Your task to perform on an android device: Open the calendar and show me this week's events Image 0: 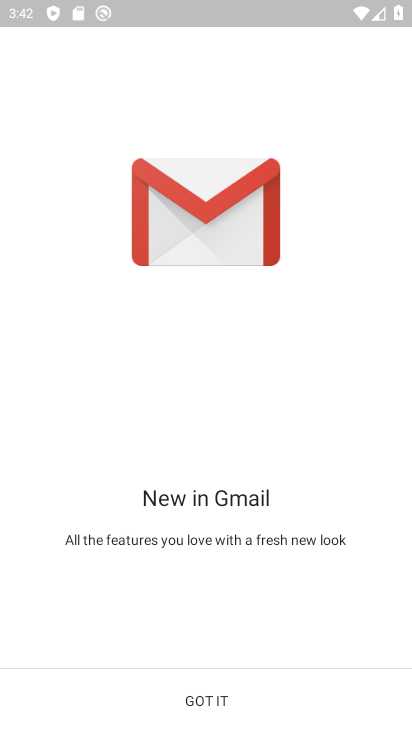
Step 0: press home button
Your task to perform on an android device: Open the calendar and show me this week's events Image 1: 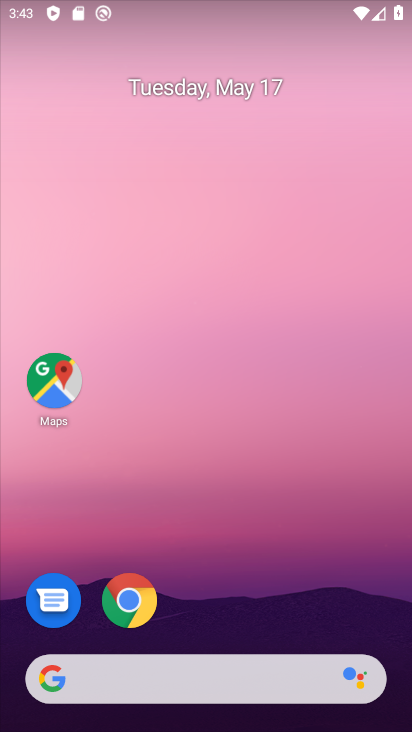
Step 1: drag from (219, 626) to (318, 145)
Your task to perform on an android device: Open the calendar and show me this week's events Image 2: 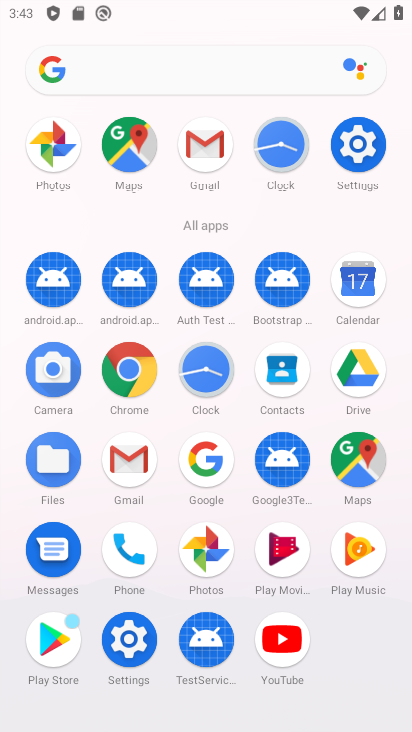
Step 2: click (363, 290)
Your task to perform on an android device: Open the calendar and show me this week's events Image 3: 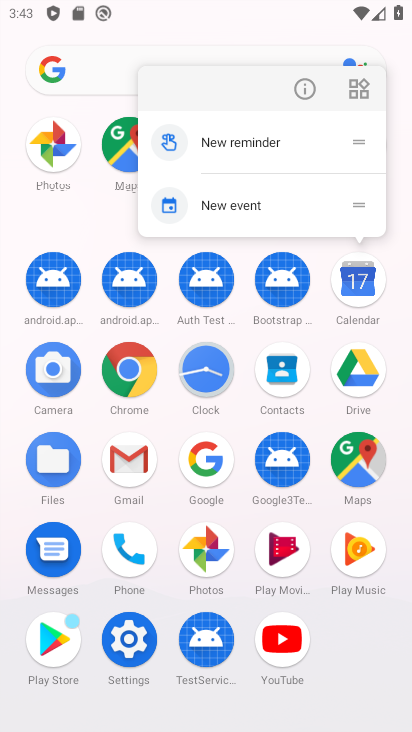
Step 3: click (372, 284)
Your task to perform on an android device: Open the calendar and show me this week's events Image 4: 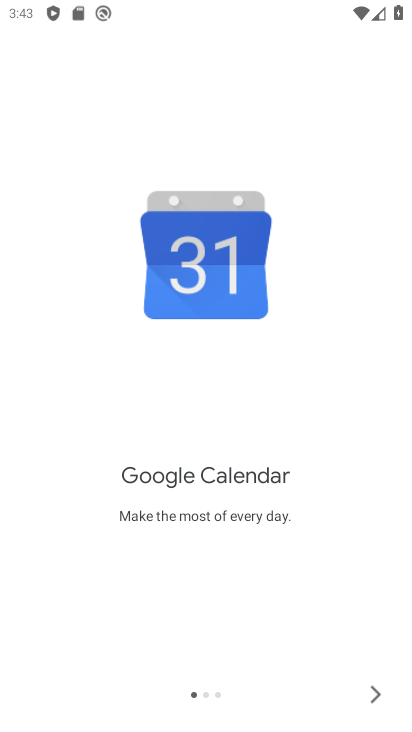
Step 4: click (372, 287)
Your task to perform on an android device: Open the calendar and show me this week's events Image 5: 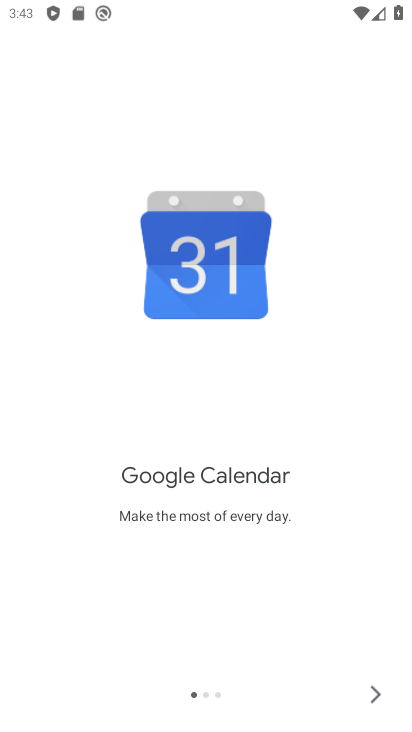
Step 5: click (380, 696)
Your task to perform on an android device: Open the calendar and show me this week's events Image 6: 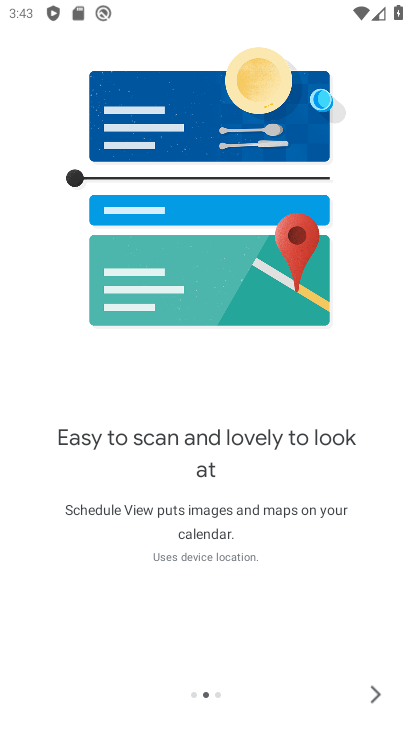
Step 6: click (382, 697)
Your task to perform on an android device: Open the calendar and show me this week's events Image 7: 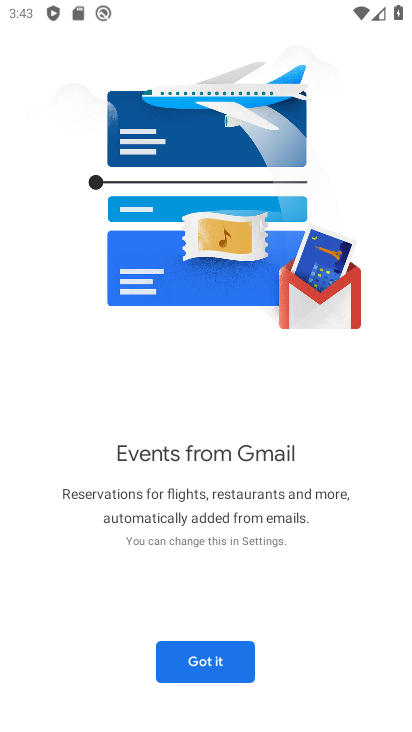
Step 7: click (235, 667)
Your task to perform on an android device: Open the calendar and show me this week's events Image 8: 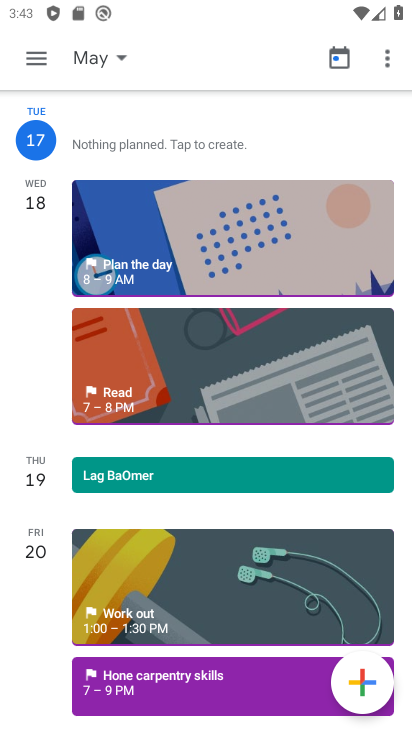
Step 8: click (33, 53)
Your task to perform on an android device: Open the calendar and show me this week's events Image 9: 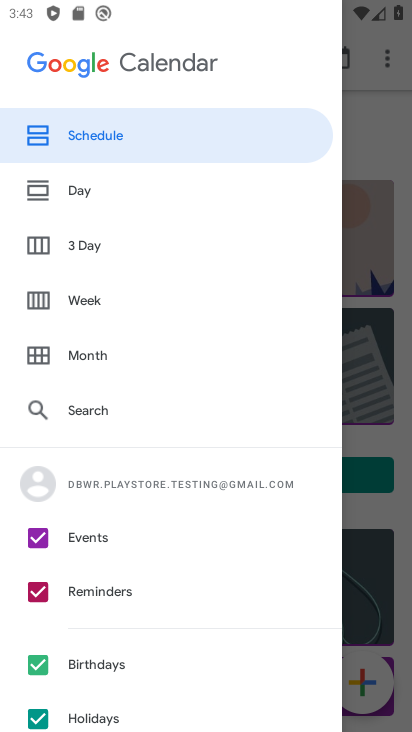
Step 9: drag from (30, 590) to (152, 416)
Your task to perform on an android device: Open the calendar and show me this week's events Image 10: 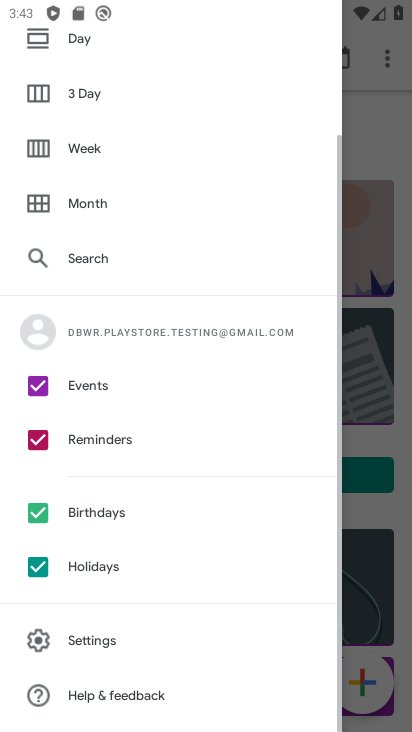
Step 10: click (226, 301)
Your task to perform on an android device: Open the calendar and show me this week's events Image 11: 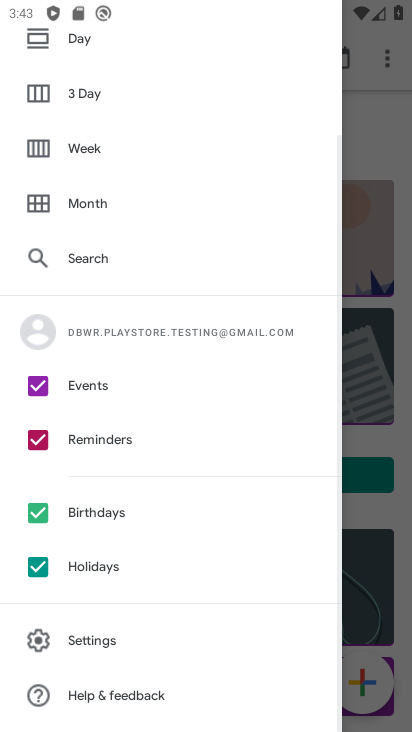
Step 11: click (41, 432)
Your task to perform on an android device: Open the calendar and show me this week's events Image 12: 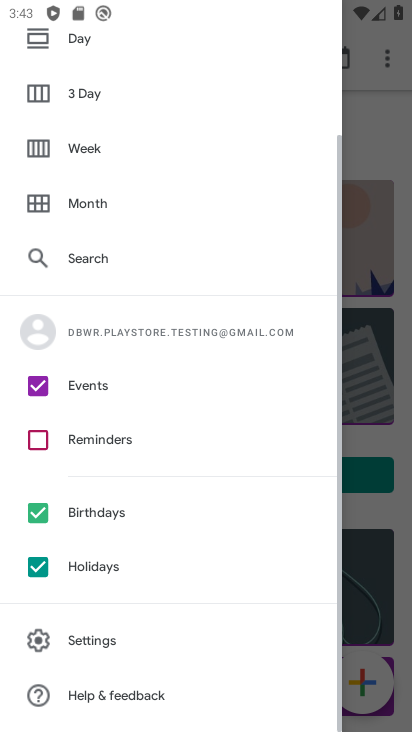
Step 12: click (55, 516)
Your task to perform on an android device: Open the calendar and show me this week's events Image 13: 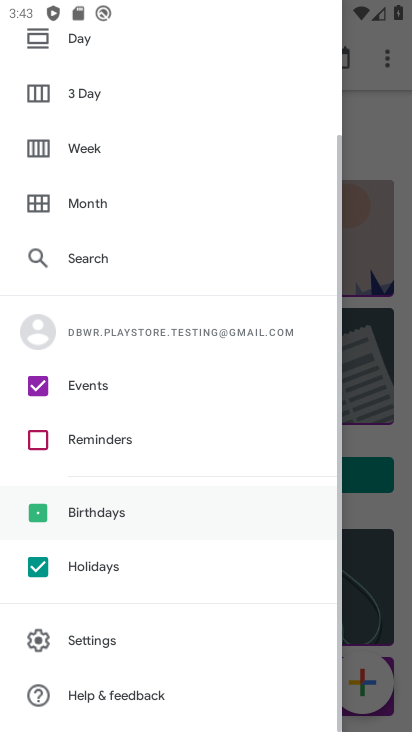
Step 13: click (56, 571)
Your task to perform on an android device: Open the calendar and show me this week's events Image 14: 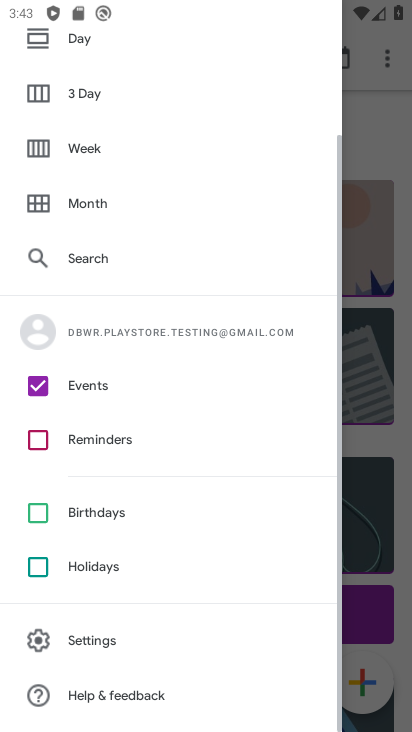
Step 14: click (96, 150)
Your task to perform on an android device: Open the calendar and show me this week's events Image 15: 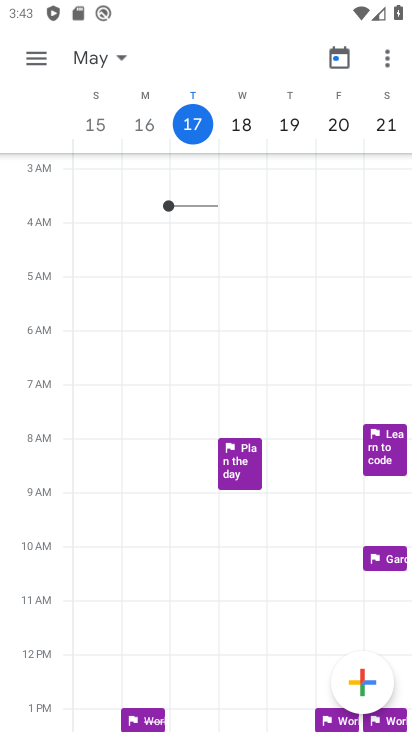
Step 15: task complete